Your task to perform on an android device: What is the news today? Image 0: 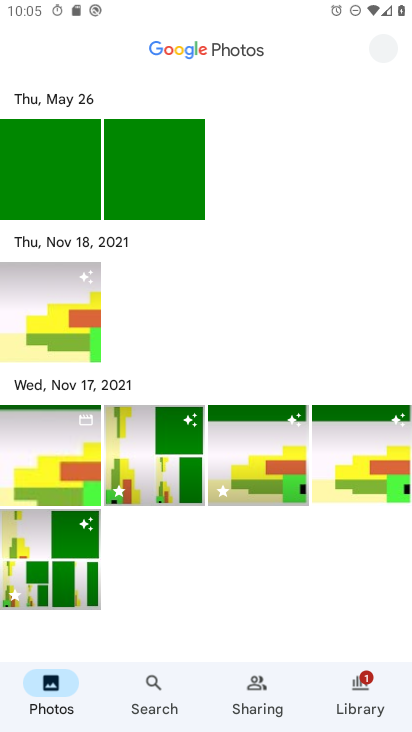
Step 0: press home button
Your task to perform on an android device: What is the news today? Image 1: 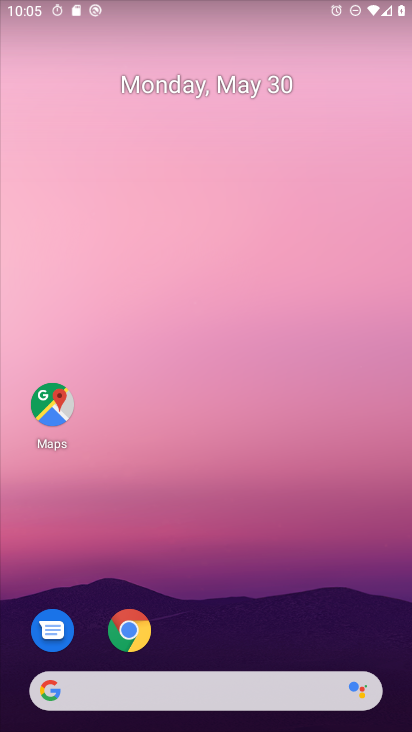
Step 1: drag from (333, 630) to (330, 33)
Your task to perform on an android device: What is the news today? Image 2: 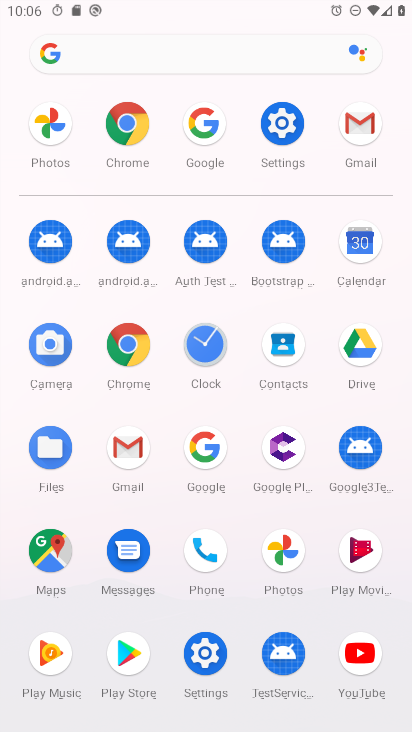
Step 2: click (203, 460)
Your task to perform on an android device: What is the news today? Image 3: 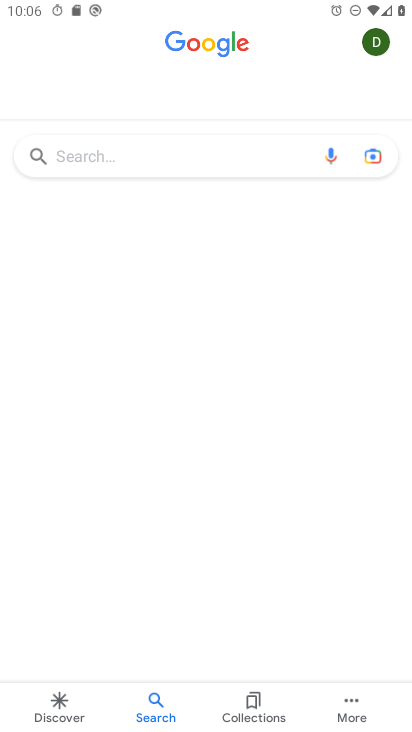
Step 3: click (134, 158)
Your task to perform on an android device: What is the news today? Image 4: 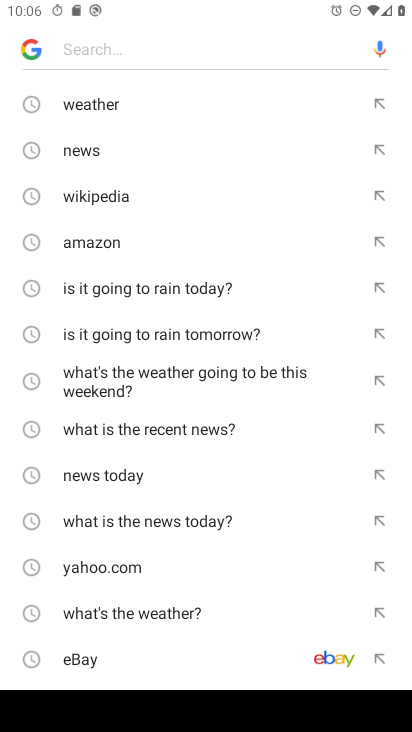
Step 4: click (188, 517)
Your task to perform on an android device: What is the news today? Image 5: 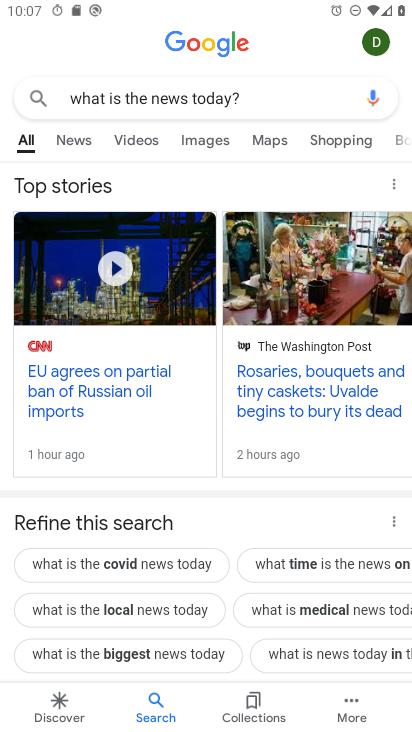
Step 5: task complete